Your task to perform on an android device: Open the web browser Image 0: 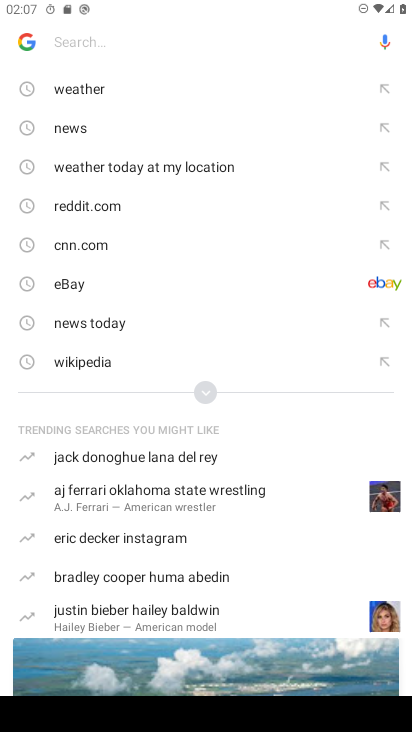
Step 0: press home button
Your task to perform on an android device: Open the web browser Image 1: 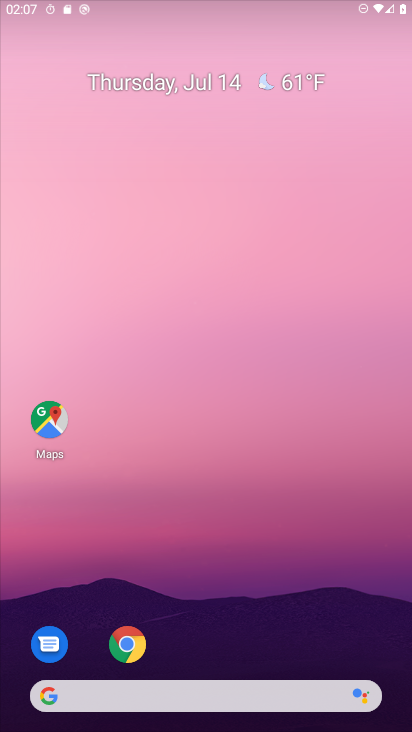
Step 1: drag from (368, 604) to (391, 118)
Your task to perform on an android device: Open the web browser Image 2: 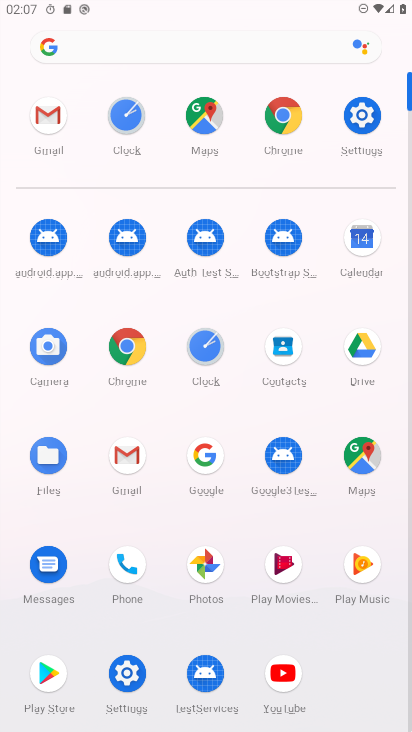
Step 2: click (127, 343)
Your task to perform on an android device: Open the web browser Image 3: 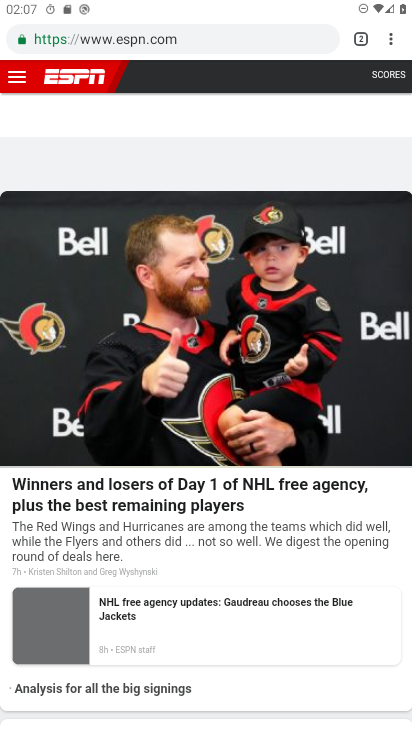
Step 3: task complete